Your task to perform on an android device: turn on translation in the chrome app Image 0: 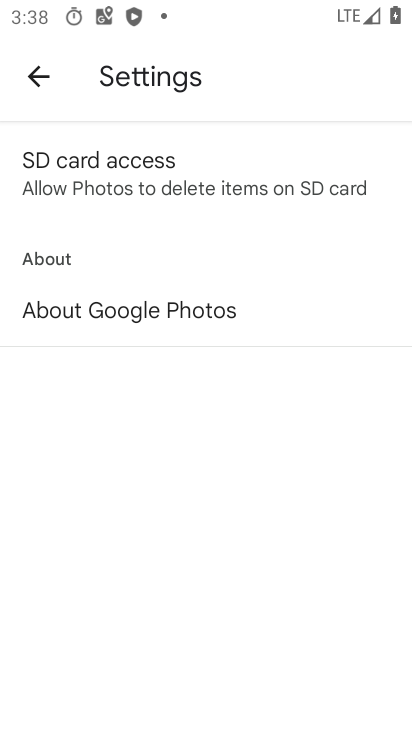
Step 0: press home button
Your task to perform on an android device: turn on translation in the chrome app Image 1: 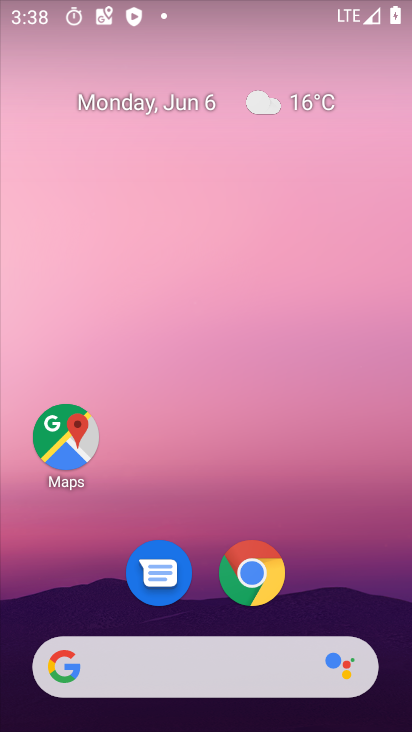
Step 1: drag from (363, 563) to (365, 165)
Your task to perform on an android device: turn on translation in the chrome app Image 2: 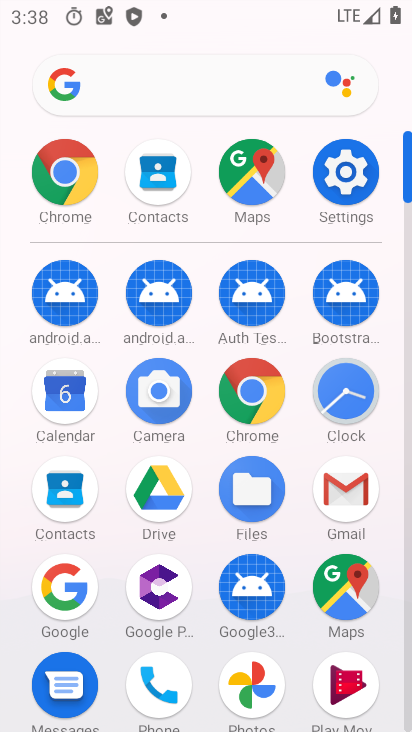
Step 2: click (267, 398)
Your task to perform on an android device: turn on translation in the chrome app Image 3: 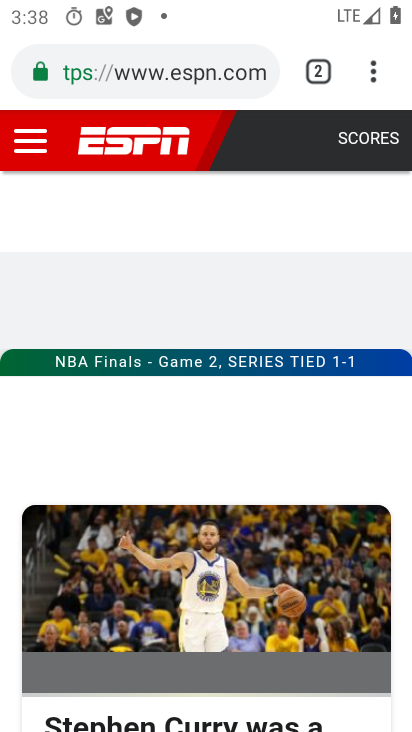
Step 3: click (371, 82)
Your task to perform on an android device: turn on translation in the chrome app Image 4: 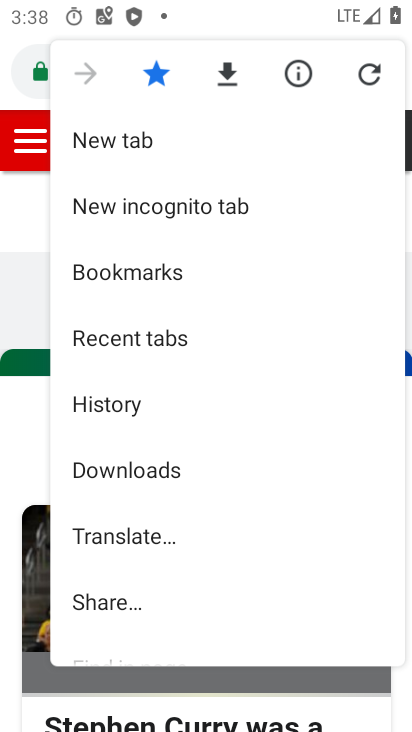
Step 4: drag from (339, 401) to (340, 310)
Your task to perform on an android device: turn on translation in the chrome app Image 5: 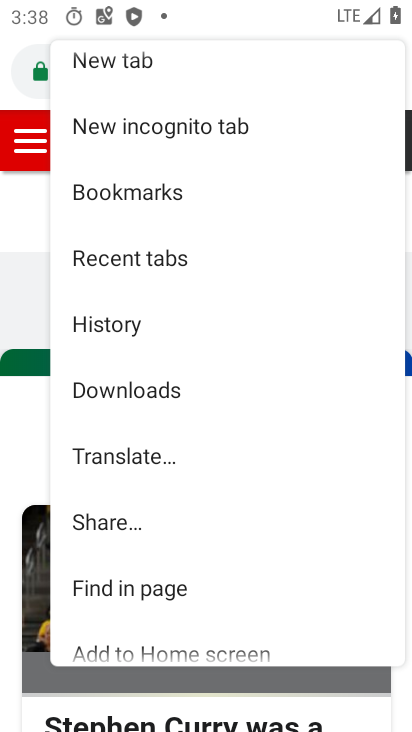
Step 5: drag from (334, 394) to (333, 294)
Your task to perform on an android device: turn on translation in the chrome app Image 6: 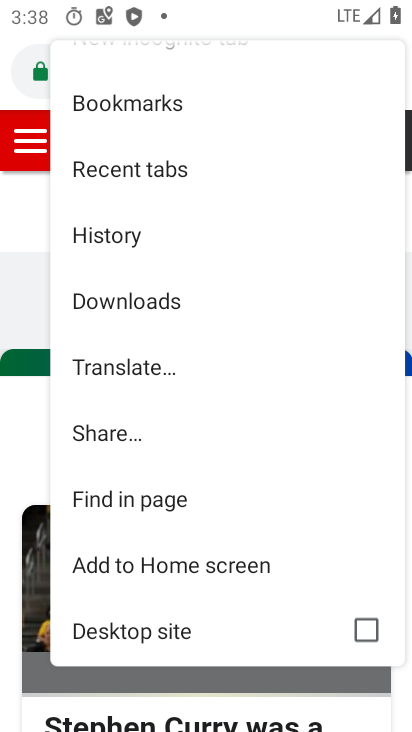
Step 6: drag from (341, 408) to (324, 241)
Your task to perform on an android device: turn on translation in the chrome app Image 7: 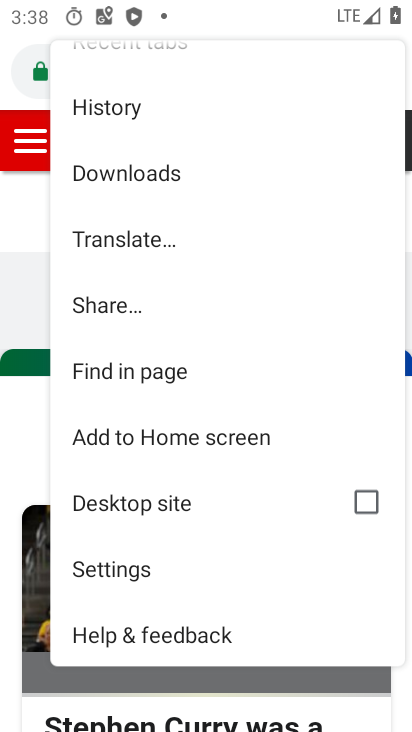
Step 7: click (125, 583)
Your task to perform on an android device: turn on translation in the chrome app Image 8: 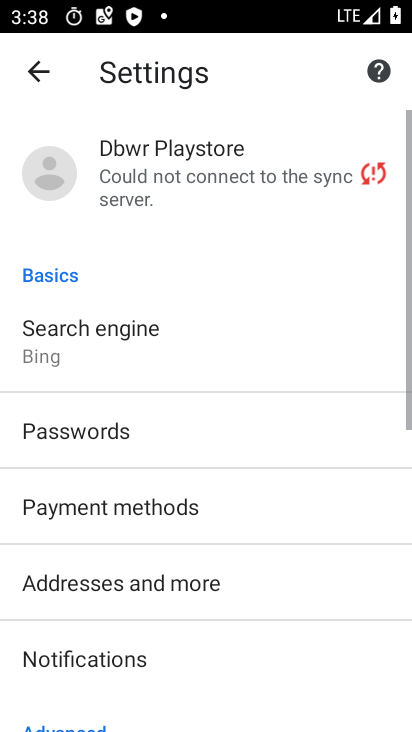
Step 8: drag from (284, 552) to (293, 451)
Your task to perform on an android device: turn on translation in the chrome app Image 9: 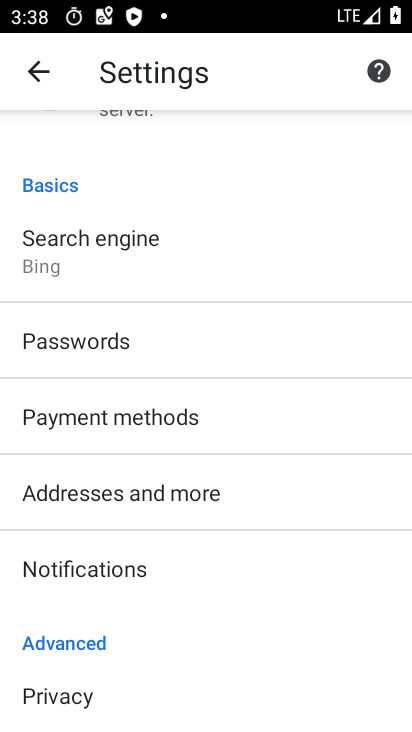
Step 9: drag from (288, 556) to (289, 470)
Your task to perform on an android device: turn on translation in the chrome app Image 10: 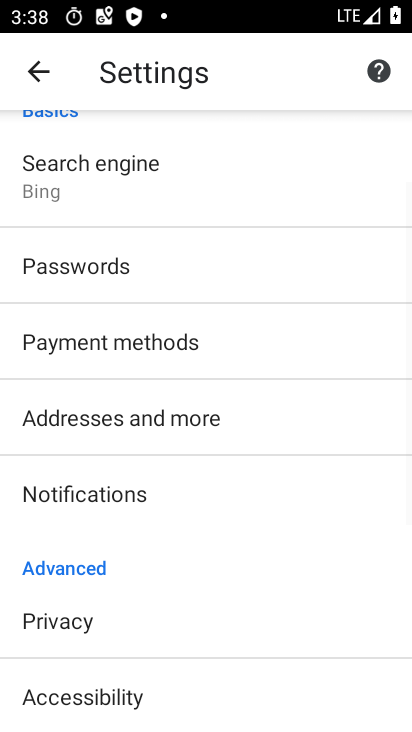
Step 10: drag from (276, 542) to (280, 470)
Your task to perform on an android device: turn on translation in the chrome app Image 11: 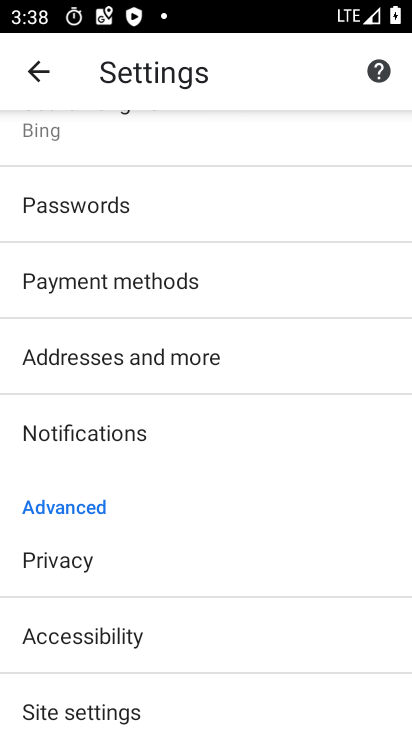
Step 11: drag from (287, 535) to (293, 472)
Your task to perform on an android device: turn on translation in the chrome app Image 12: 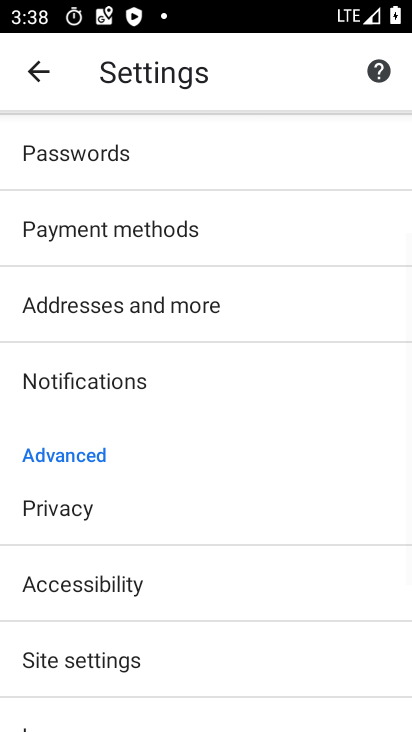
Step 12: drag from (296, 531) to (302, 447)
Your task to perform on an android device: turn on translation in the chrome app Image 13: 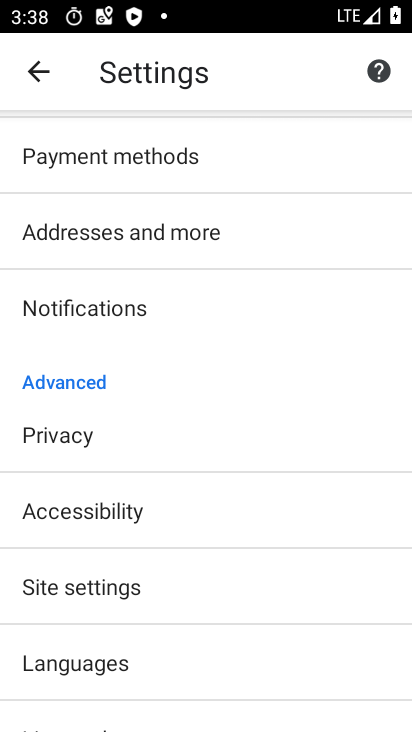
Step 13: drag from (292, 533) to (292, 449)
Your task to perform on an android device: turn on translation in the chrome app Image 14: 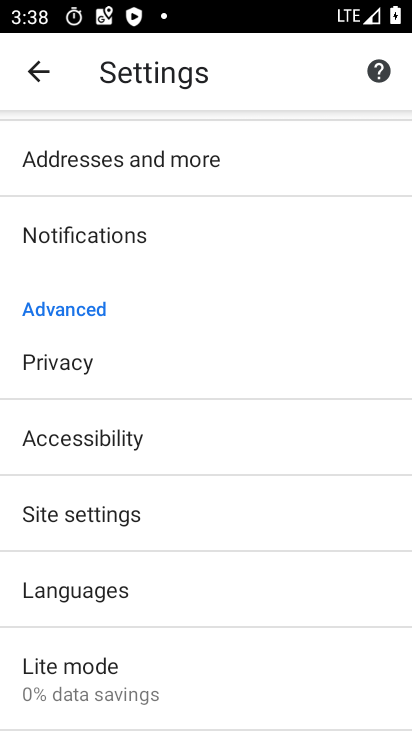
Step 14: click (258, 584)
Your task to perform on an android device: turn on translation in the chrome app Image 15: 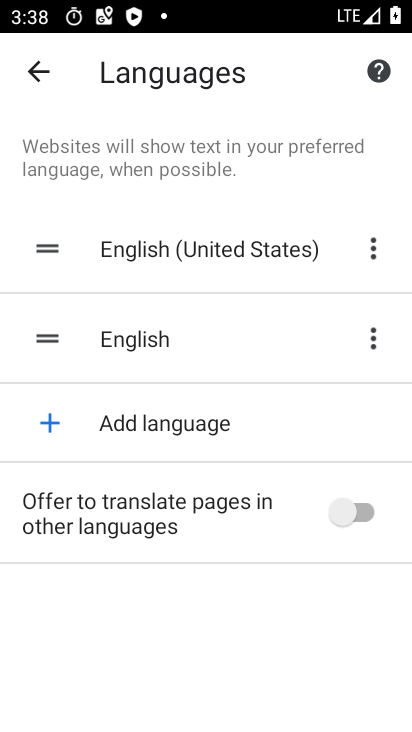
Step 15: click (337, 532)
Your task to perform on an android device: turn on translation in the chrome app Image 16: 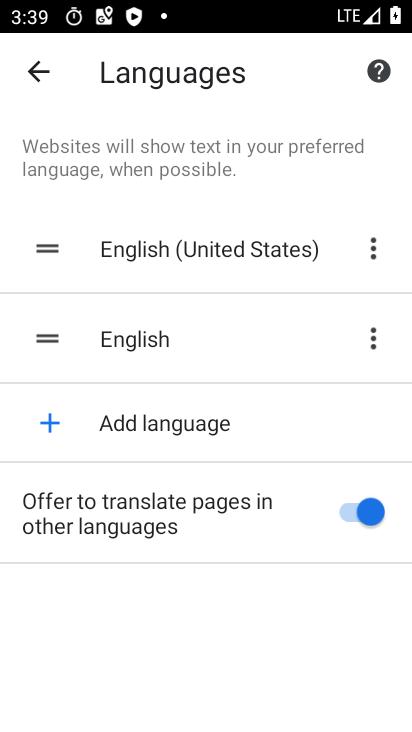
Step 16: task complete